Your task to perform on an android device: set an alarm Image 0: 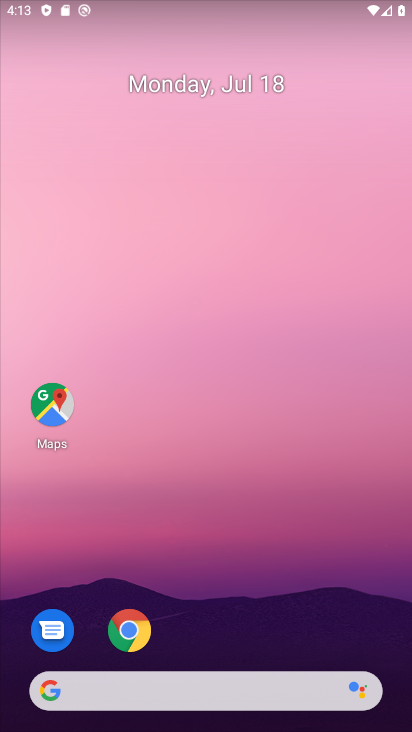
Step 0: drag from (245, 564) to (163, 12)
Your task to perform on an android device: set an alarm Image 1: 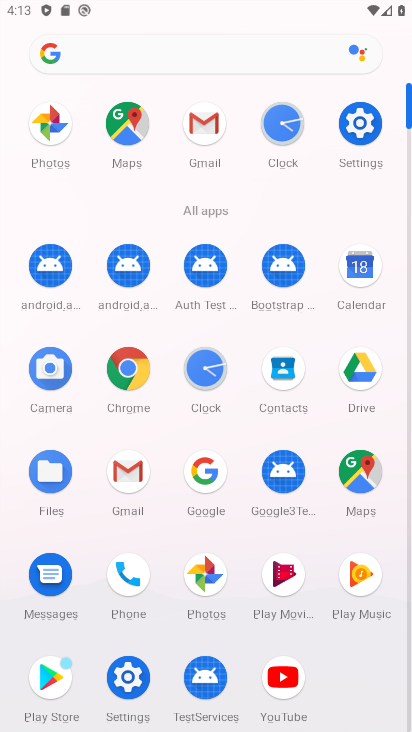
Step 1: click (285, 124)
Your task to perform on an android device: set an alarm Image 2: 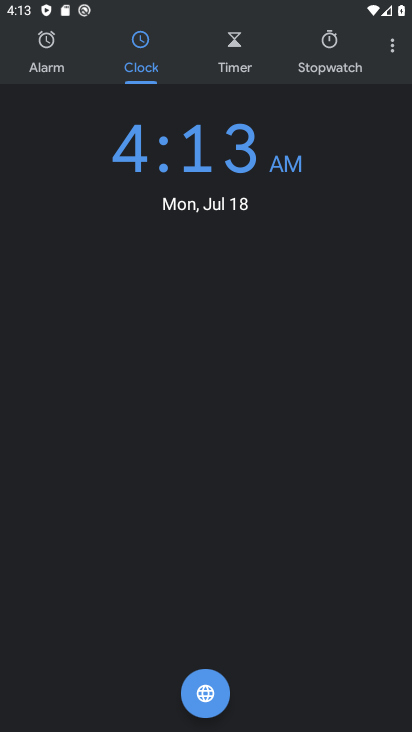
Step 2: click (37, 53)
Your task to perform on an android device: set an alarm Image 3: 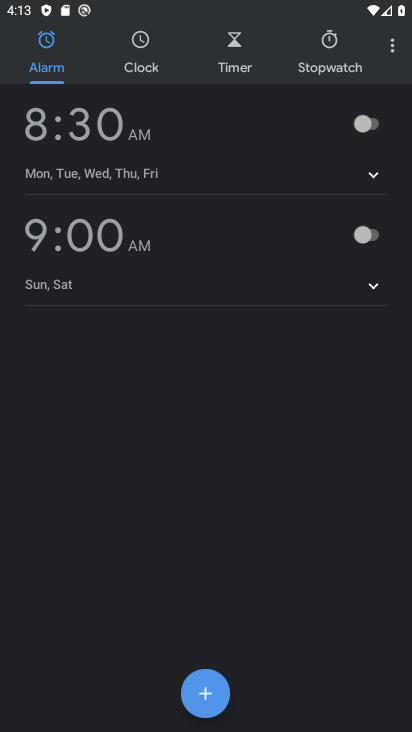
Step 3: click (201, 694)
Your task to perform on an android device: set an alarm Image 4: 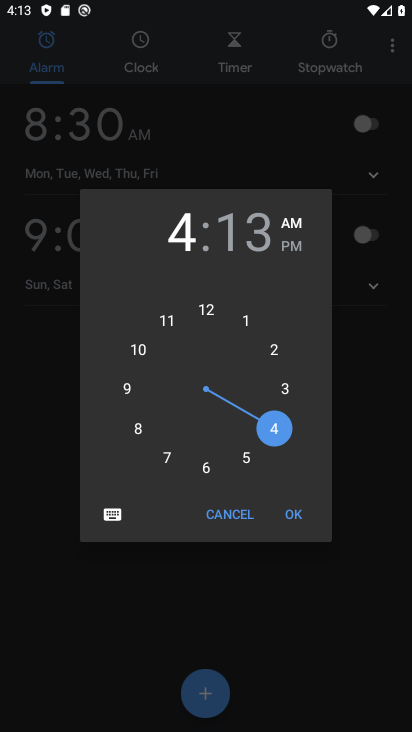
Step 4: click (294, 512)
Your task to perform on an android device: set an alarm Image 5: 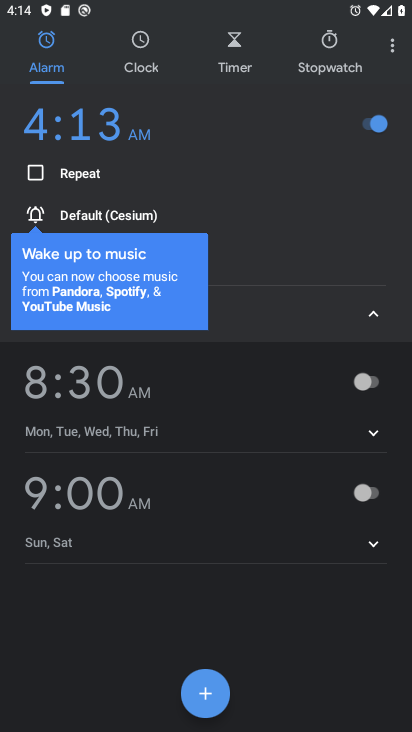
Step 5: task complete